Your task to perform on an android device: Open Android settings Image 0: 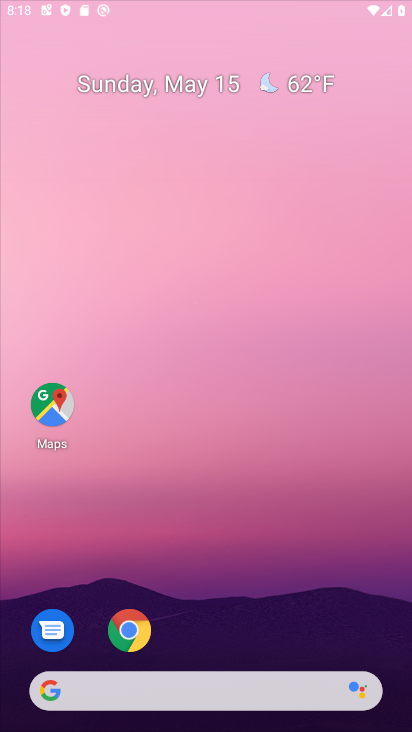
Step 0: drag from (215, 573) to (233, 60)
Your task to perform on an android device: Open Android settings Image 1: 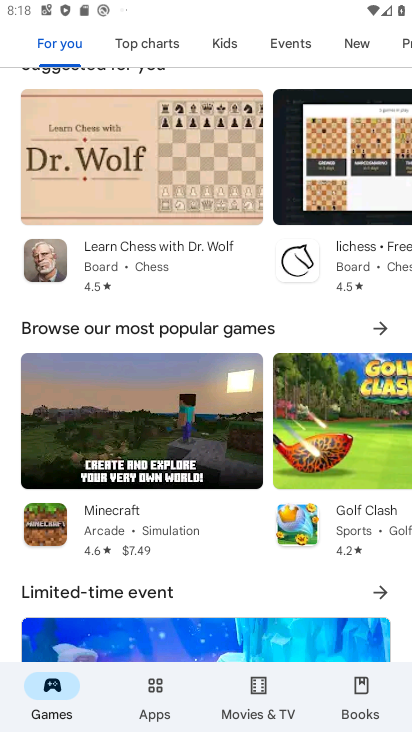
Step 1: press home button
Your task to perform on an android device: Open Android settings Image 2: 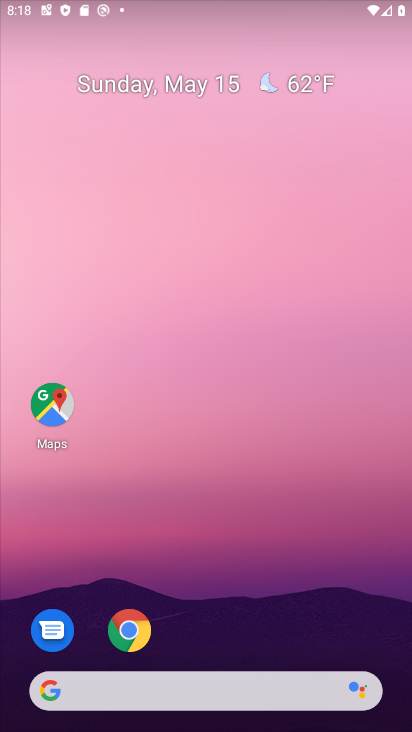
Step 2: drag from (184, 489) to (302, 31)
Your task to perform on an android device: Open Android settings Image 3: 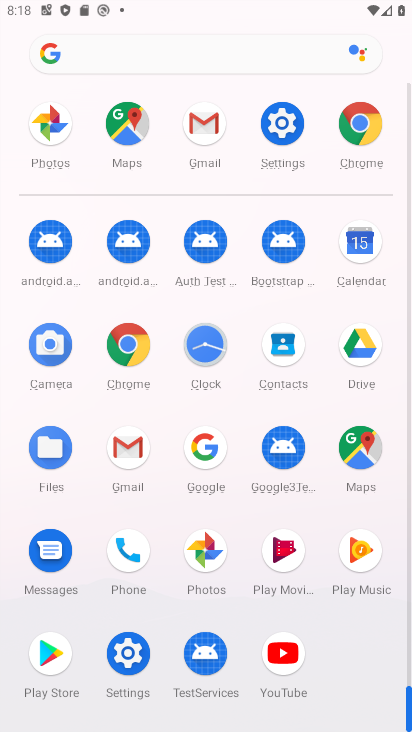
Step 3: click (129, 666)
Your task to perform on an android device: Open Android settings Image 4: 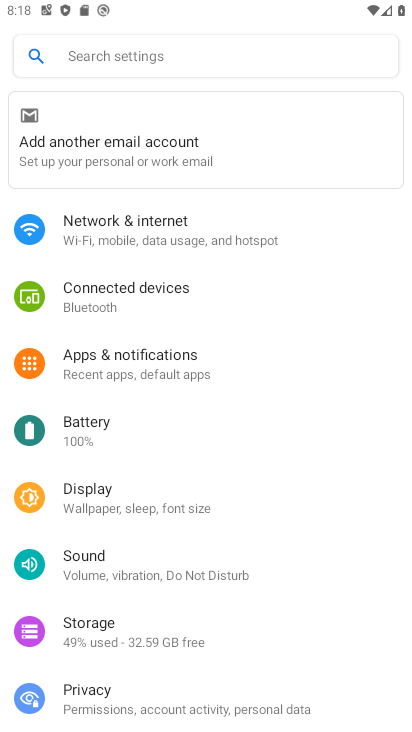
Step 4: drag from (140, 623) to (157, 234)
Your task to perform on an android device: Open Android settings Image 5: 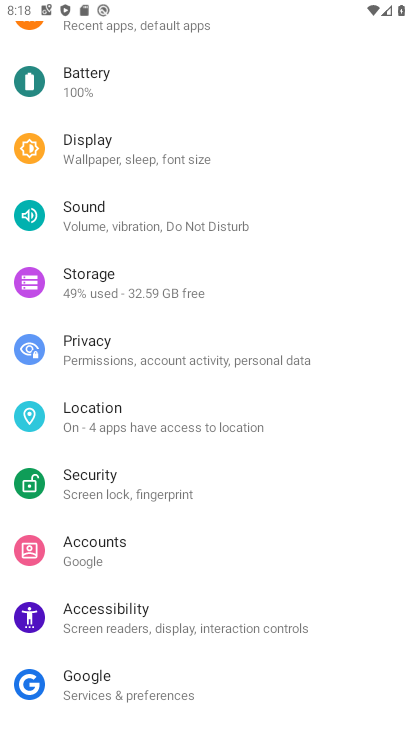
Step 5: drag from (97, 648) to (133, 267)
Your task to perform on an android device: Open Android settings Image 6: 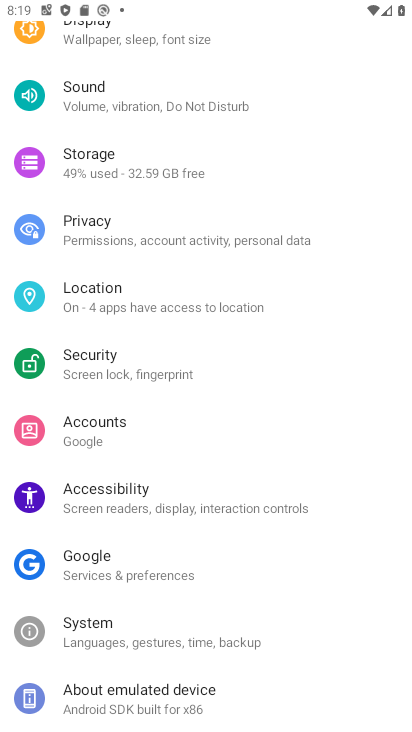
Step 6: click (100, 693)
Your task to perform on an android device: Open Android settings Image 7: 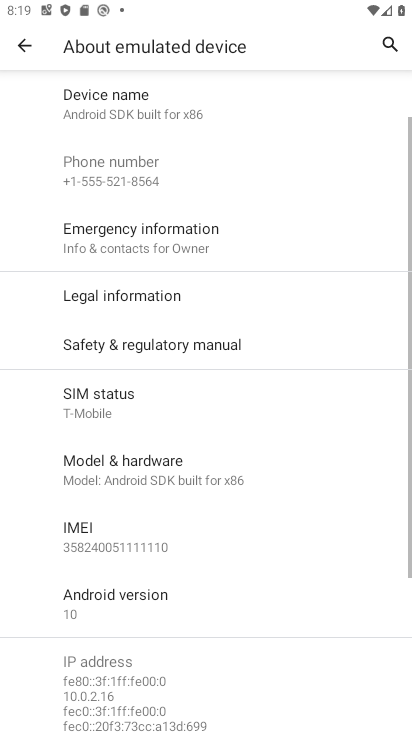
Step 7: click (114, 600)
Your task to perform on an android device: Open Android settings Image 8: 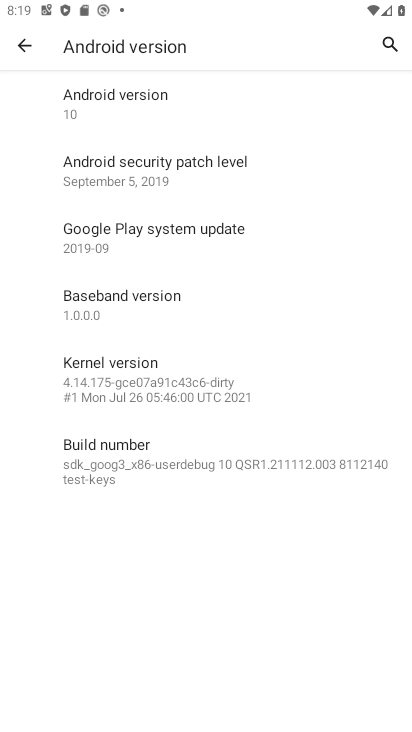
Step 8: task complete